Your task to perform on an android device: move a message to another label in the gmail app Image 0: 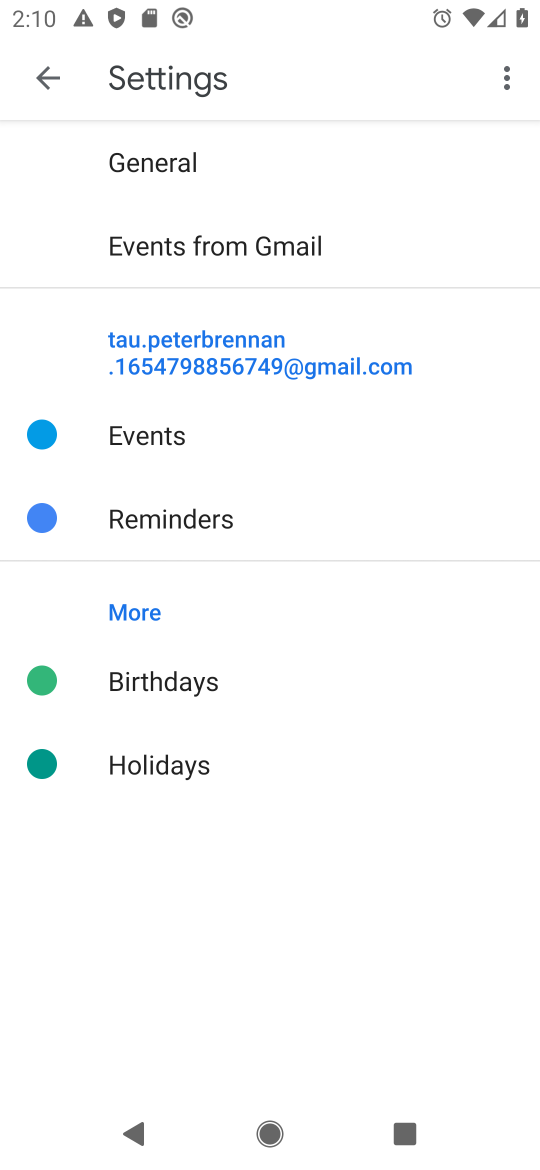
Step 0: press home button
Your task to perform on an android device: move a message to another label in the gmail app Image 1: 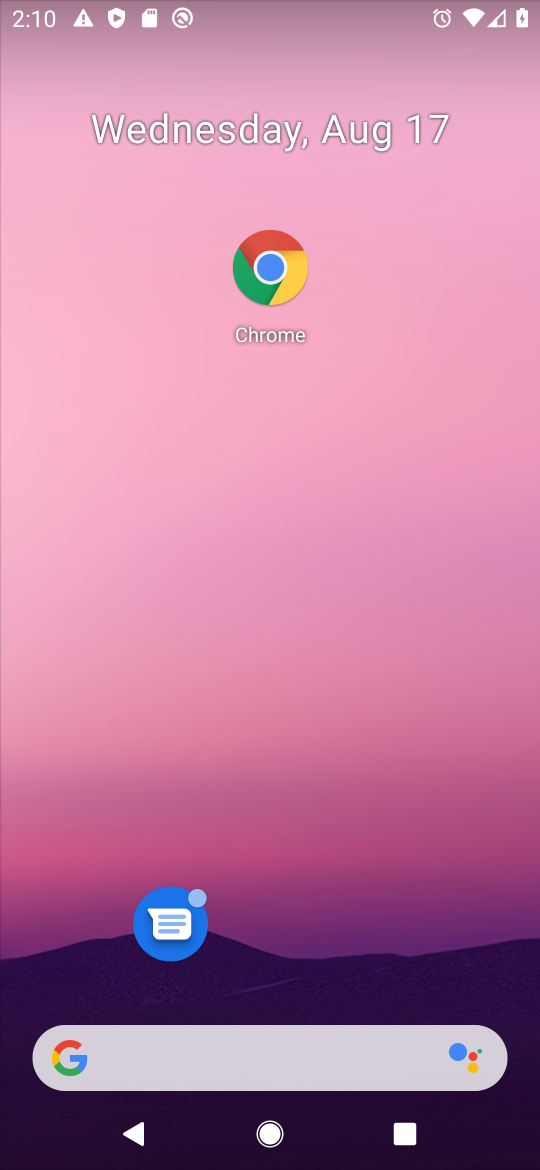
Step 1: drag from (323, 1002) to (216, 126)
Your task to perform on an android device: move a message to another label in the gmail app Image 2: 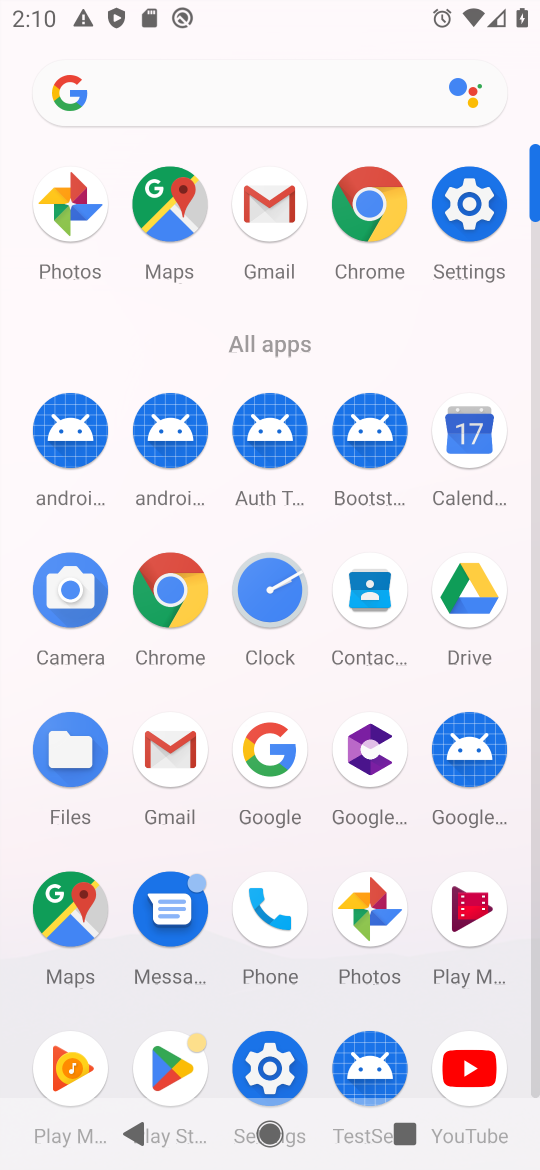
Step 2: click (182, 768)
Your task to perform on an android device: move a message to another label in the gmail app Image 3: 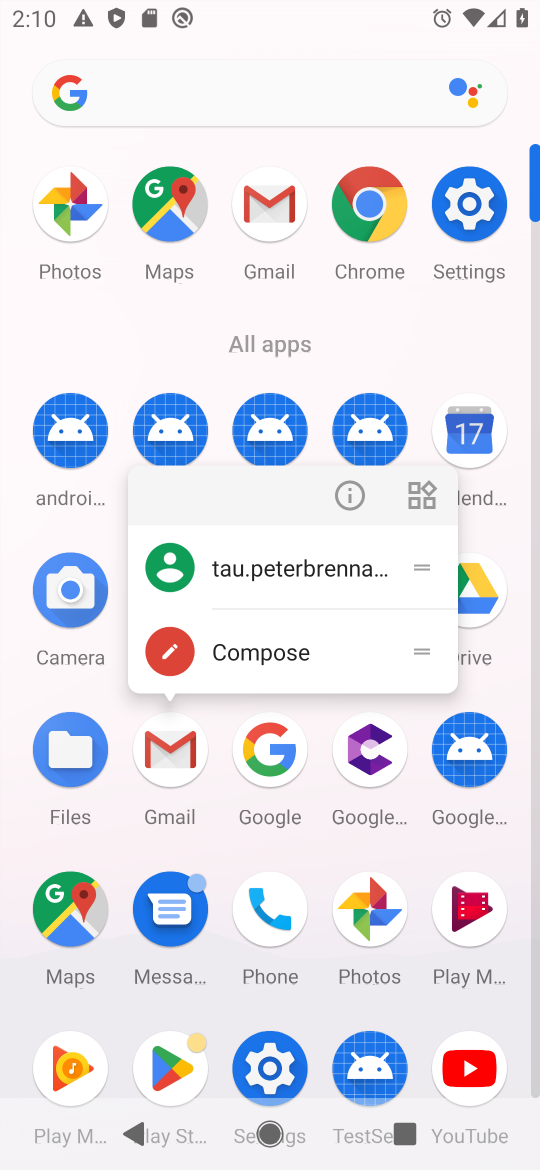
Step 3: click (179, 767)
Your task to perform on an android device: move a message to another label in the gmail app Image 4: 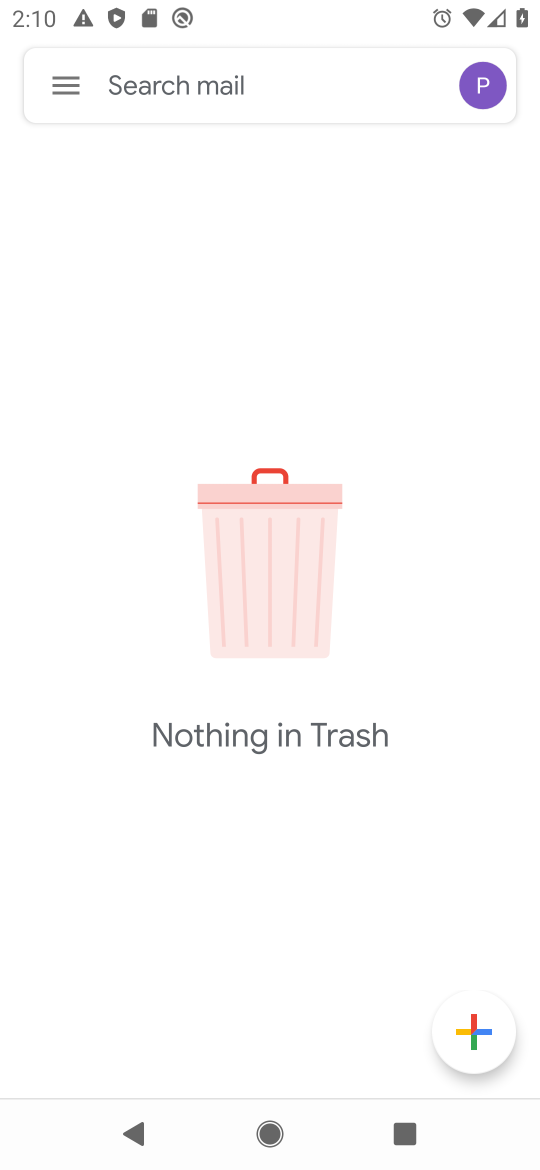
Step 4: click (45, 90)
Your task to perform on an android device: move a message to another label in the gmail app Image 5: 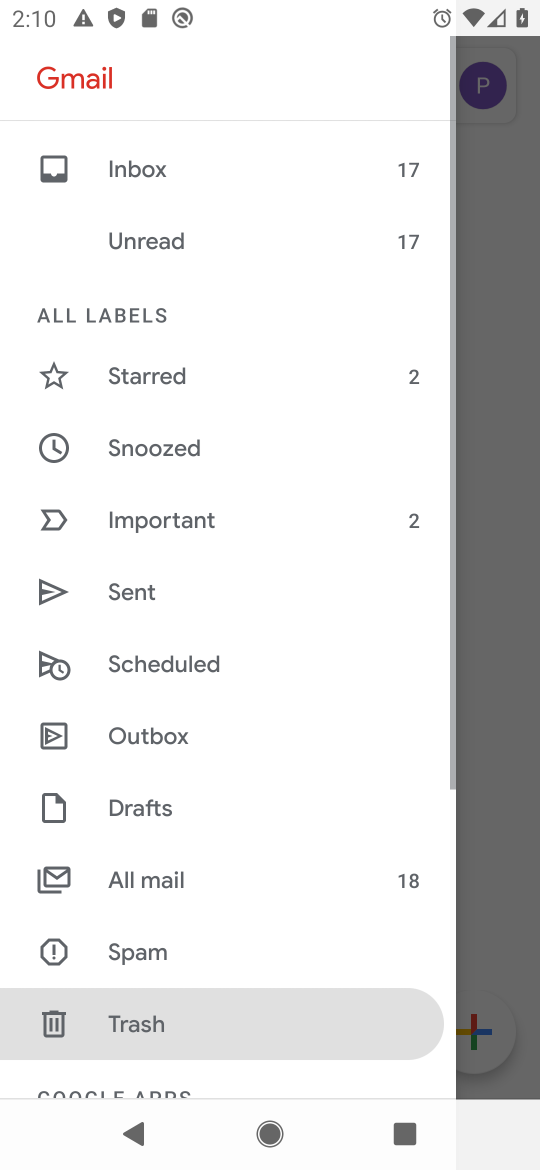
Step 5: click (91, 158)
Your task to perform on an android device: move a message to another label in the gmail app Image 6: 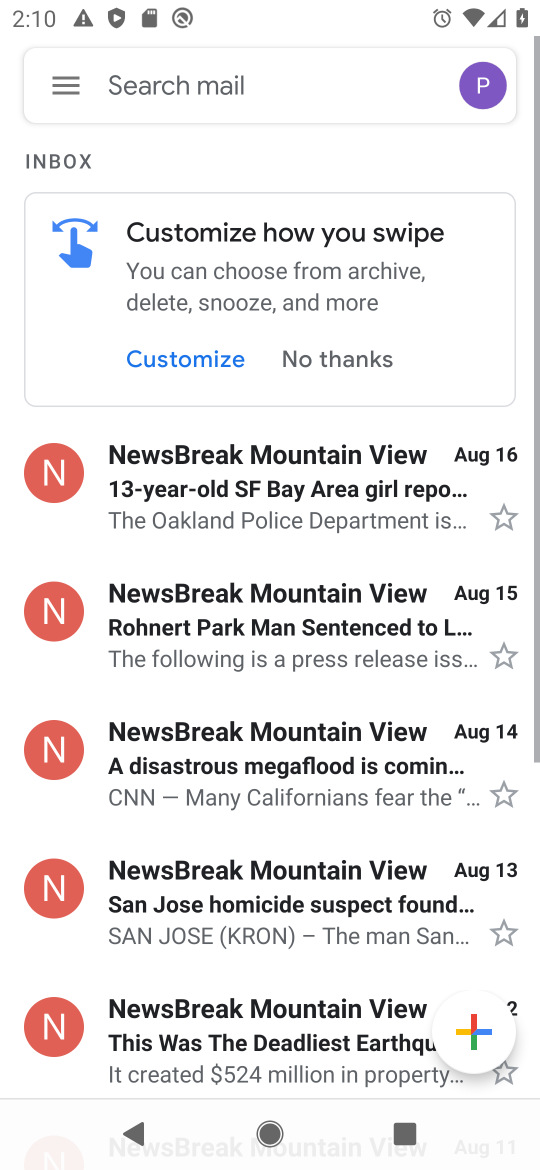
Step 6: click (262, 496)
Your task to perform on an android device: move a message to another label in the gmail app Image 7: 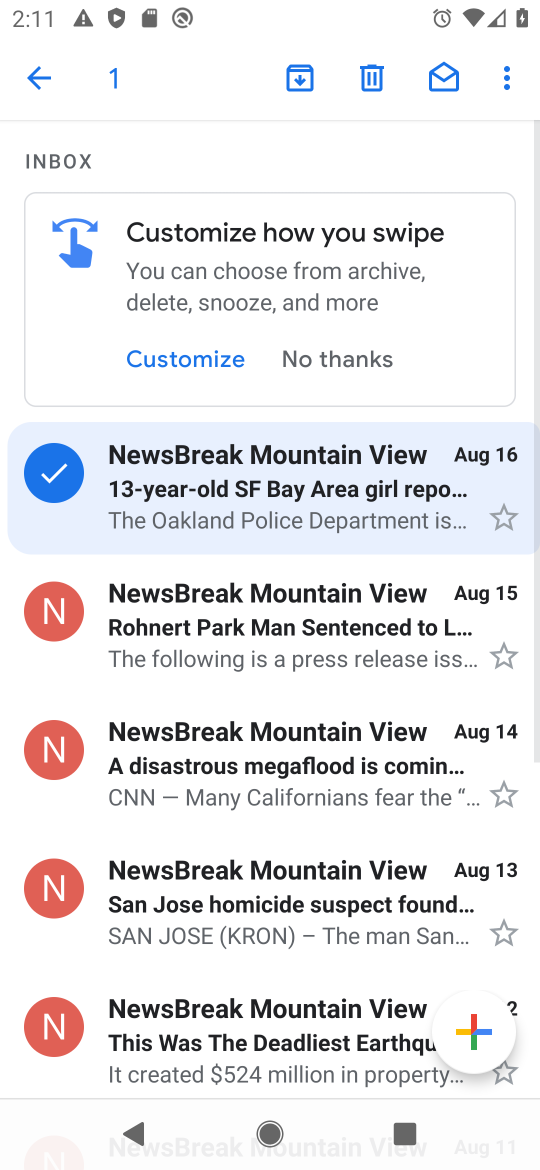
Step 7: click (507, 81)
Your task to perform on an android device: move a message to another label in the gmail app Image 8: 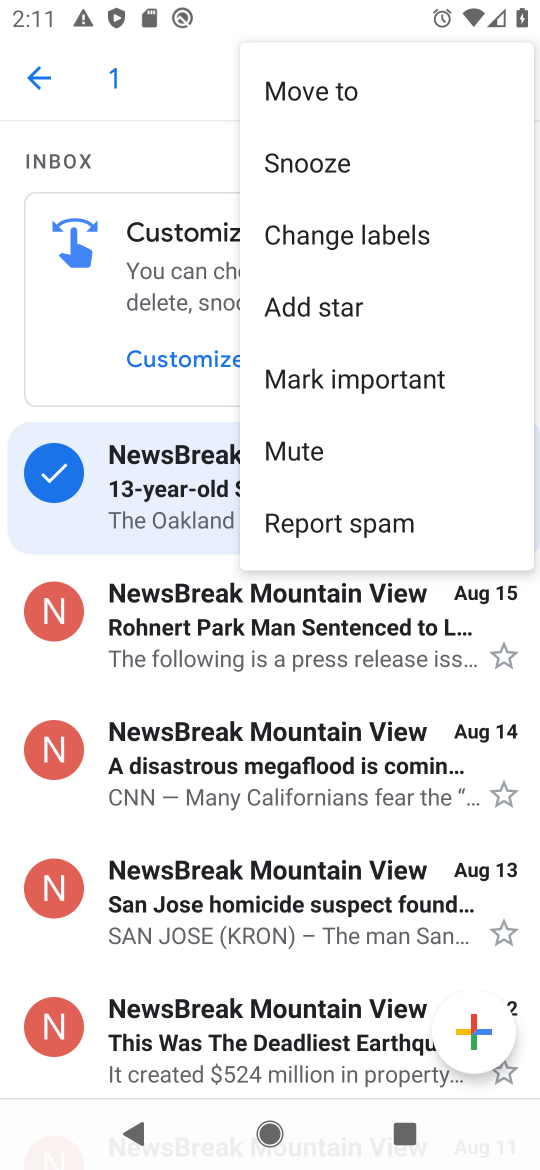
Step 8: click (301, 97)
Your task to perform on an android device: move a message to another label in the gmail app Image 9: 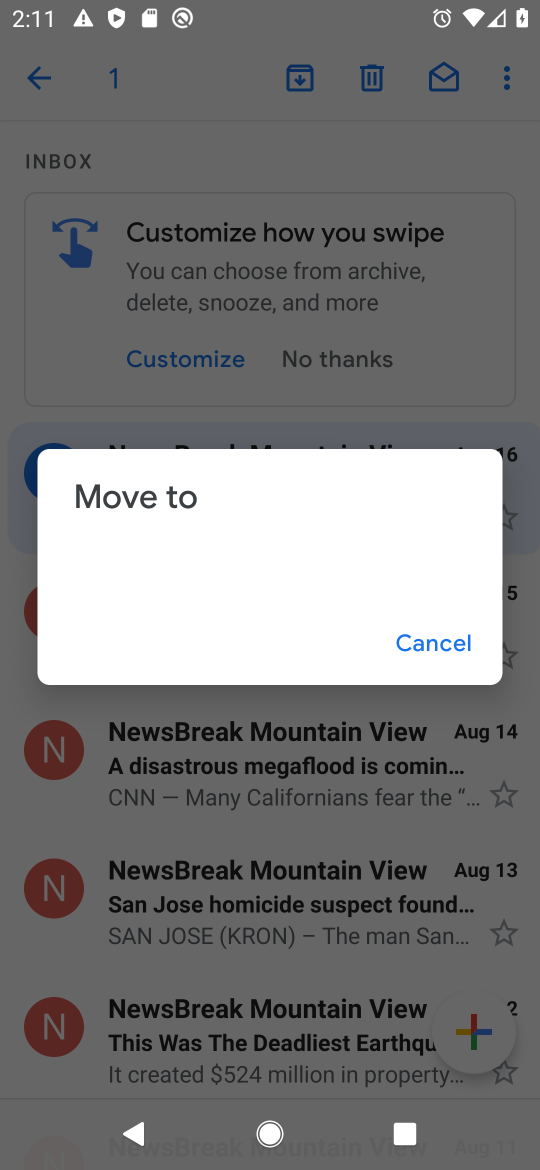
Step 9: task complete